Your task to perform on an android device: Open Maps and search for coffee Image 0: 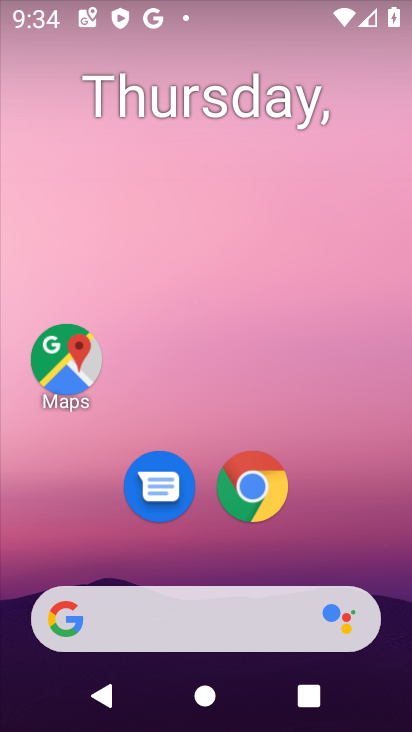
Step 0: click (57, 334)
Your task to perform on an android device: Open Maps and search for coffee Image 1: 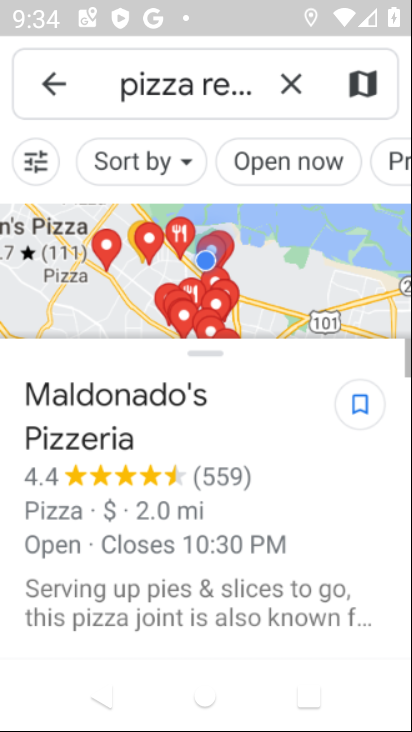
Step 1: click (292, 94)
Your task to perform on an android device: Open Maps and search for coffee Image 2: 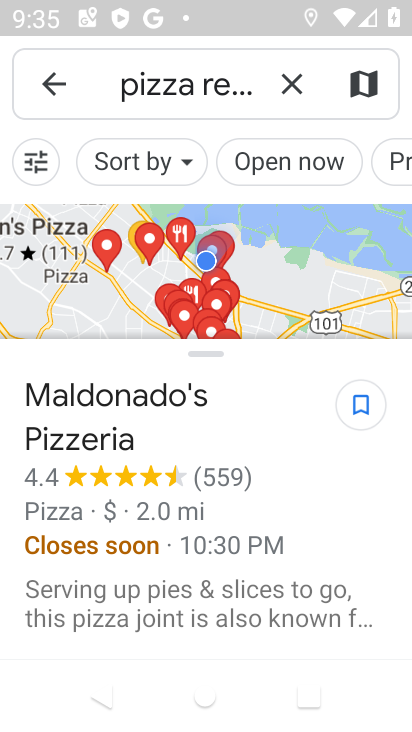
Step 2: click (292, 88)
Your task to perform on an android device: Open Maps and search for coffee Image 3: 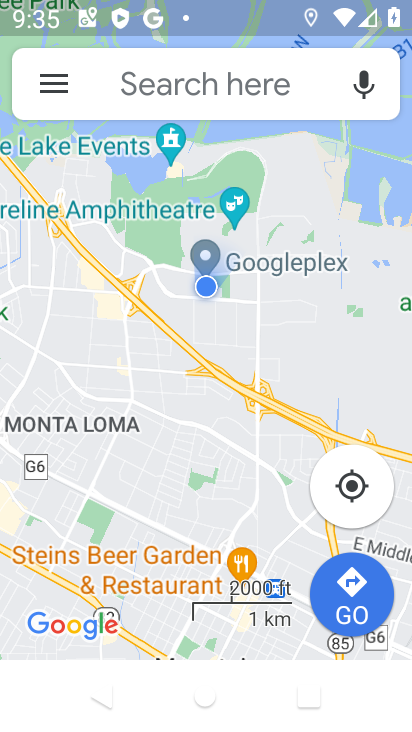
Step 3: click (211, 90)
Your task to perform on an android device: Open Maps and search for coffee Image 4: 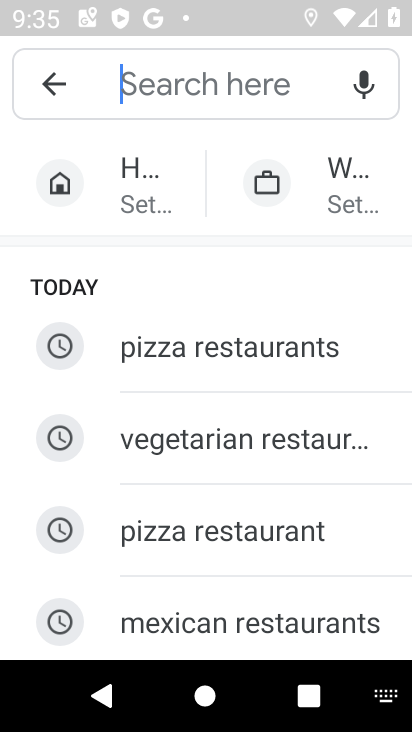
Step 4: type "coffee"
Your task to perform on an android device: Open Maps and search for coffee Image 5: 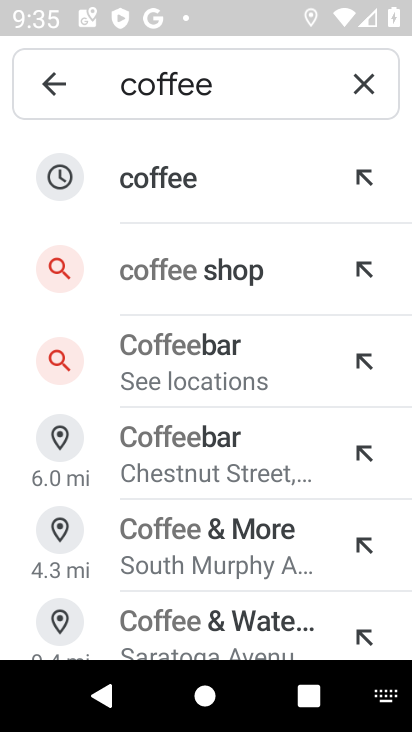
Step 5: click (183, 190)
Your task to perform on an android device: Open Maps and search for coffee Image 6: 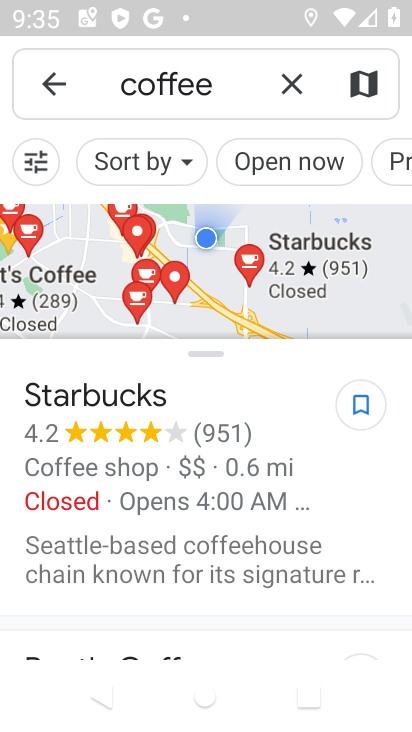
Step 6: task complete